Your task to perform on an android device: Do I have any events this weekend? Image 0: 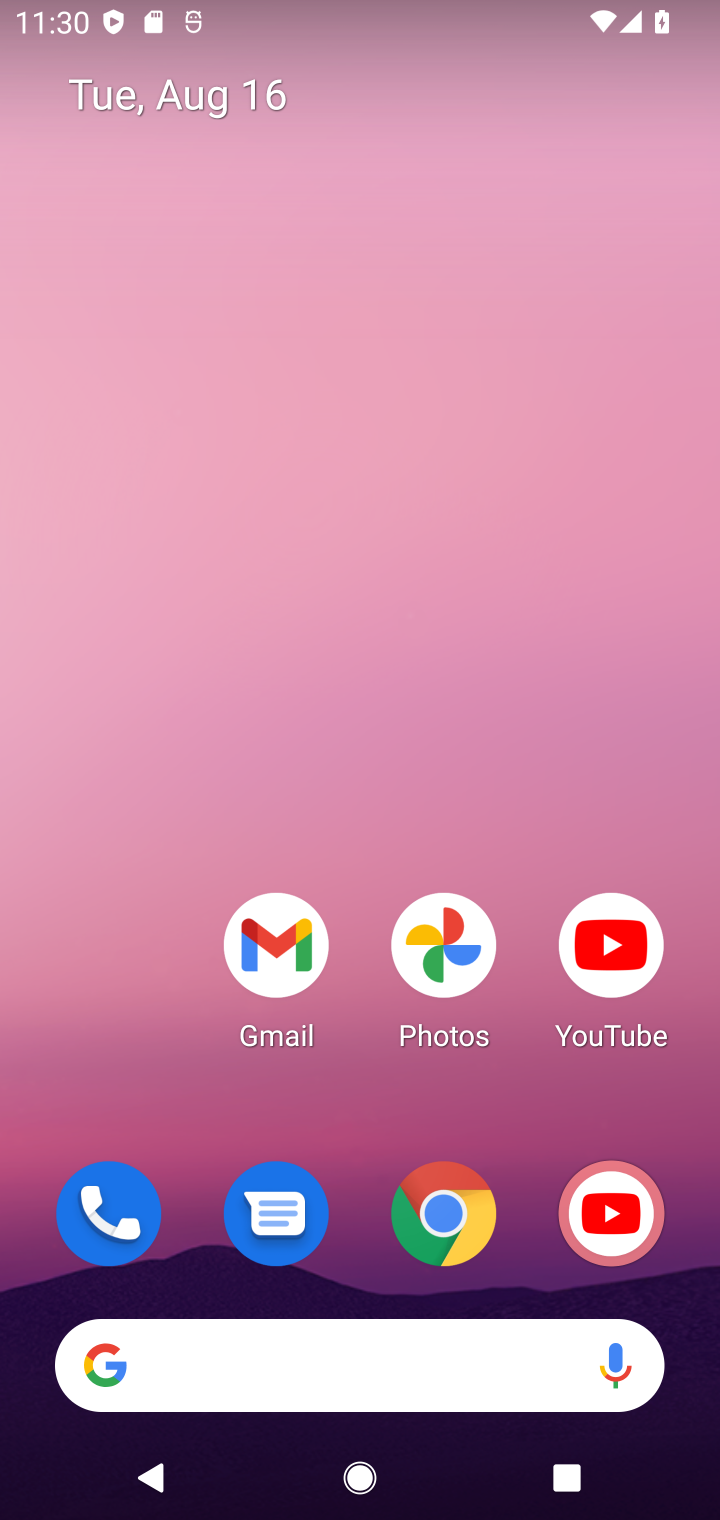
Step 0: drag from (519, 1102) to (434, 27)
Your task to perform on an android device: Do I have any events this weekend? Image 1: 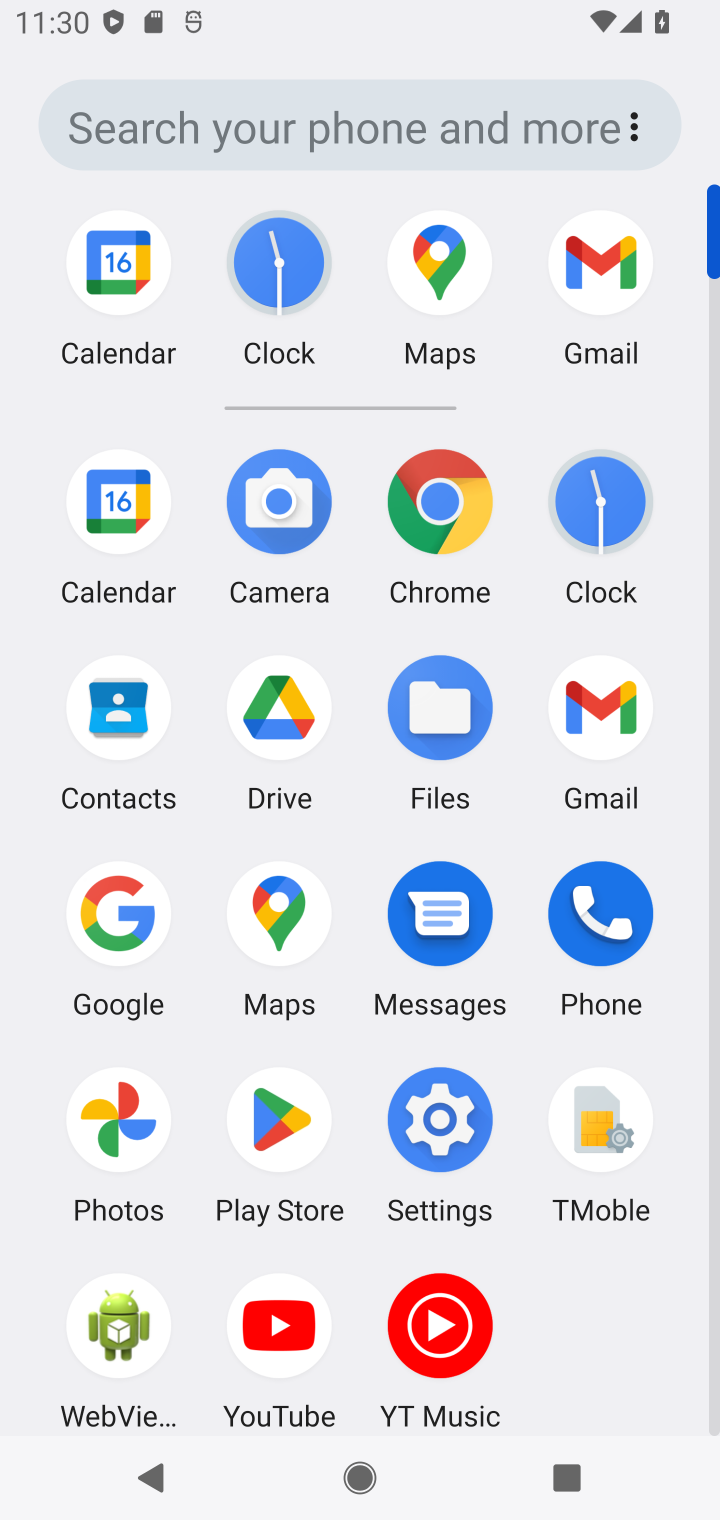
Step 1: click (112, 524)
Your task to perform on an android device: Do I have any events this weekend? Image 2: 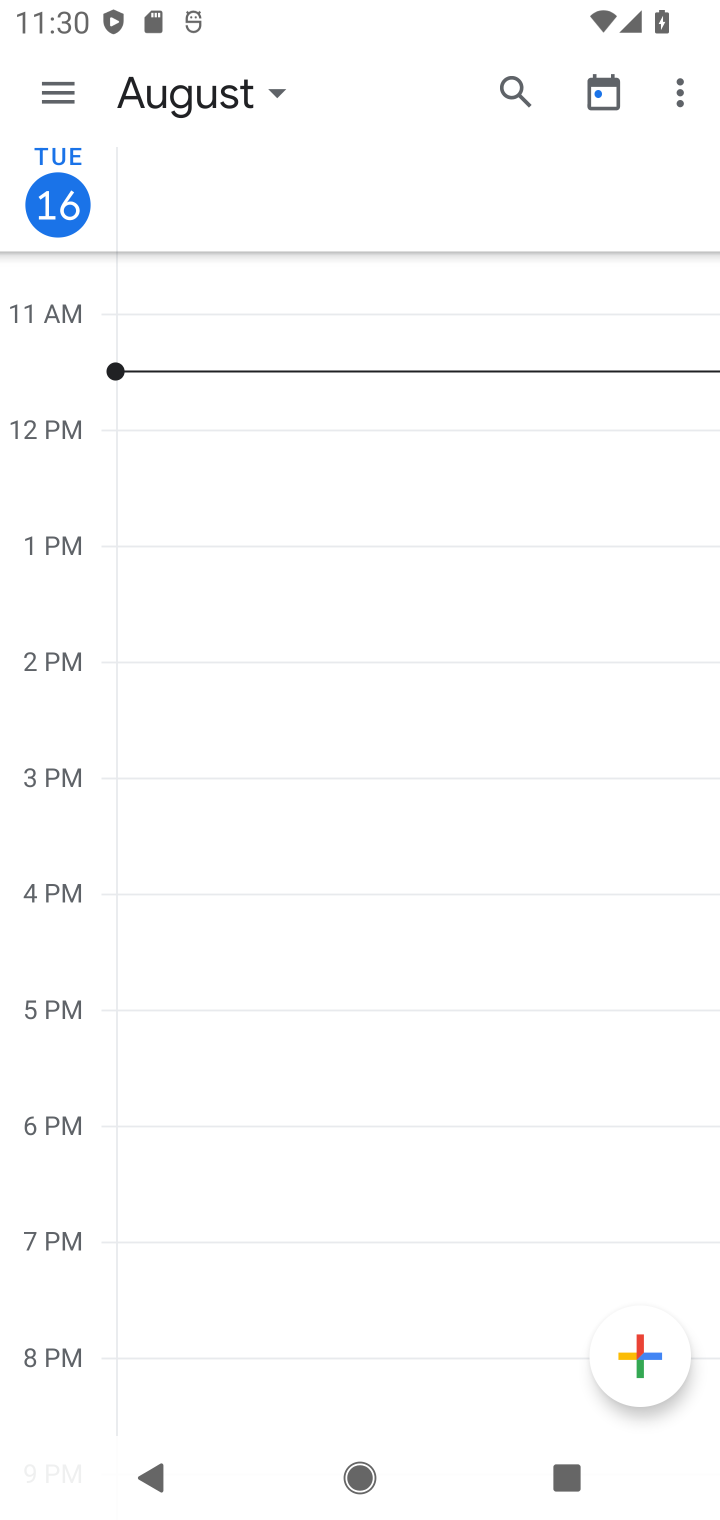
Step 2: click (160, 101)
Your task to perform on an android device: Do I have any events this weekend? Image 3: 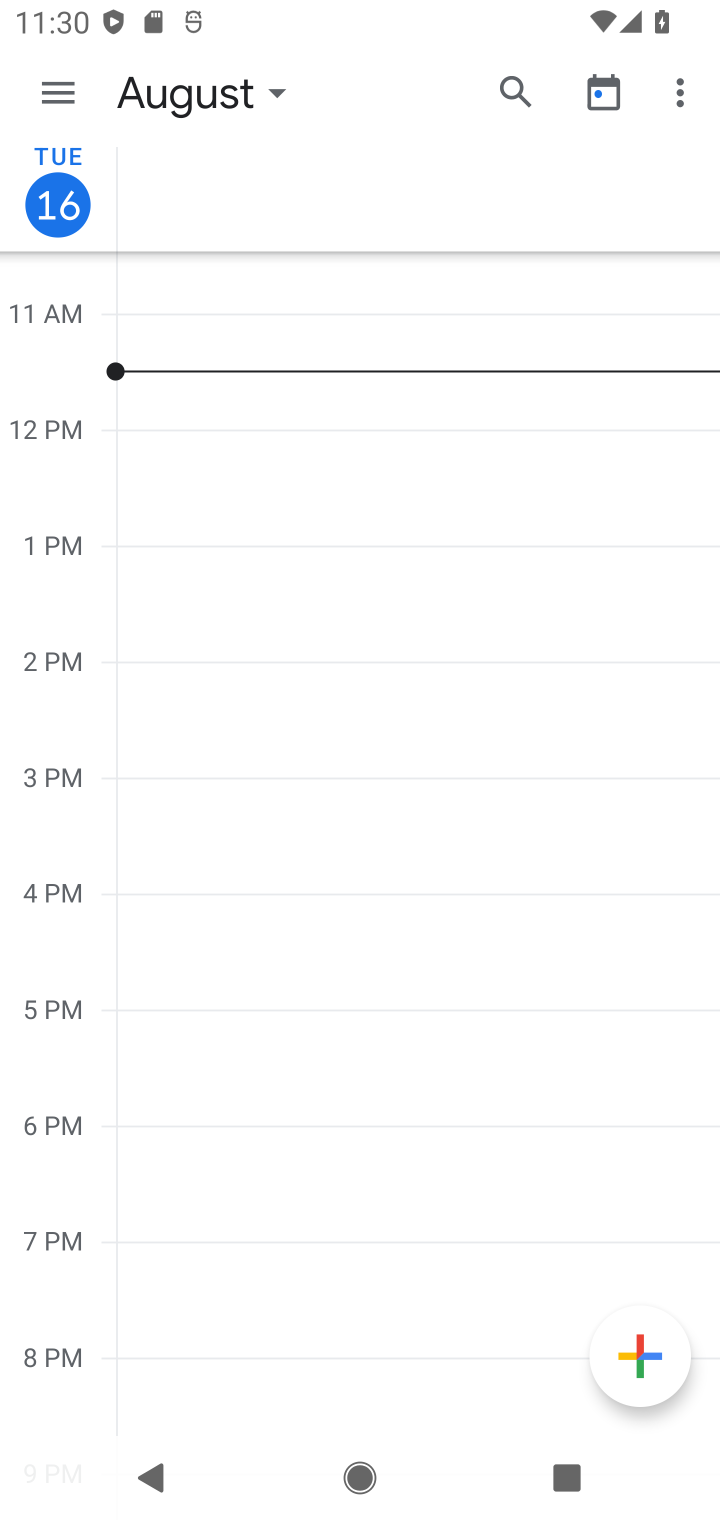
Step 3: click (228, 99)
Your task to perform on an android device: Do I have any events this weekend? Image 4: 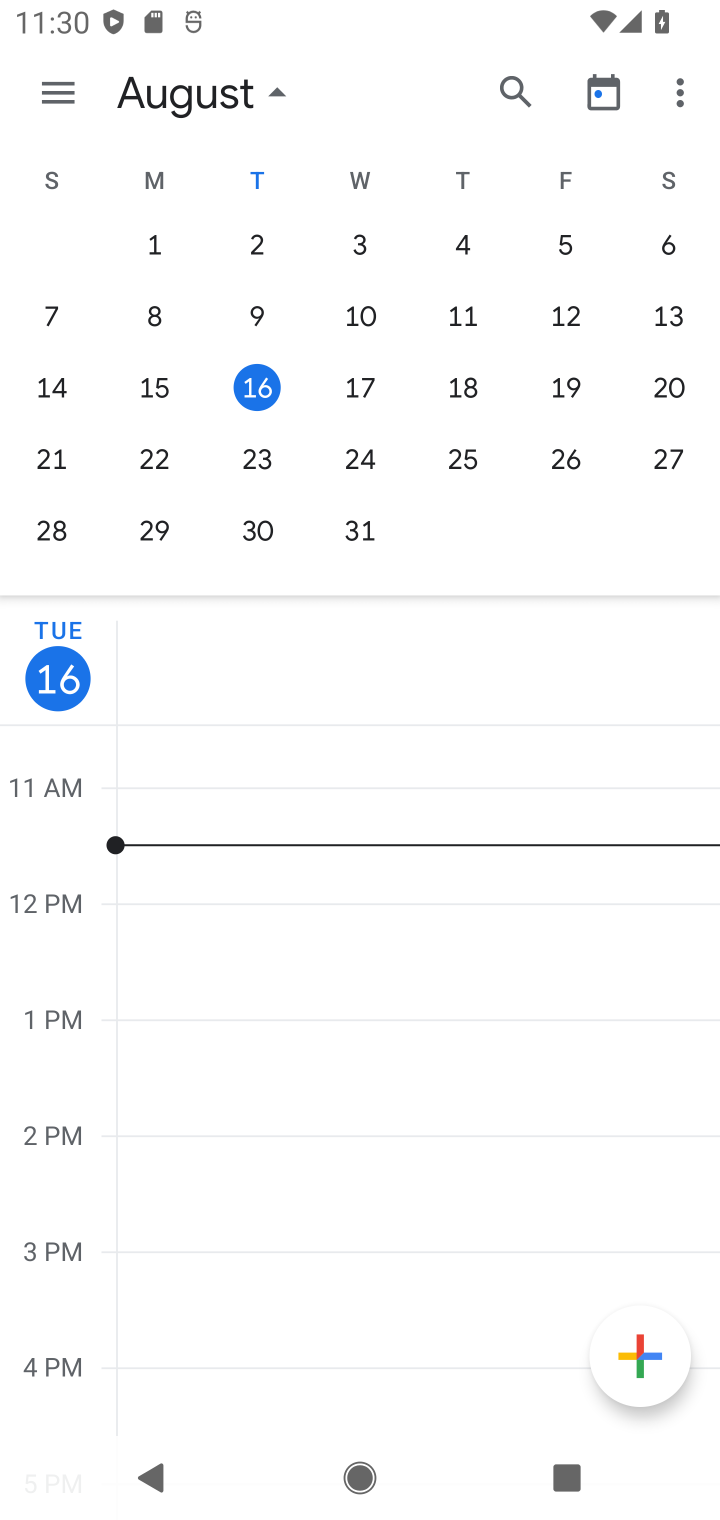
Step 4: click (651, 391)
Your task to perform on an android device: Do I have any events this weekend? Image 5: 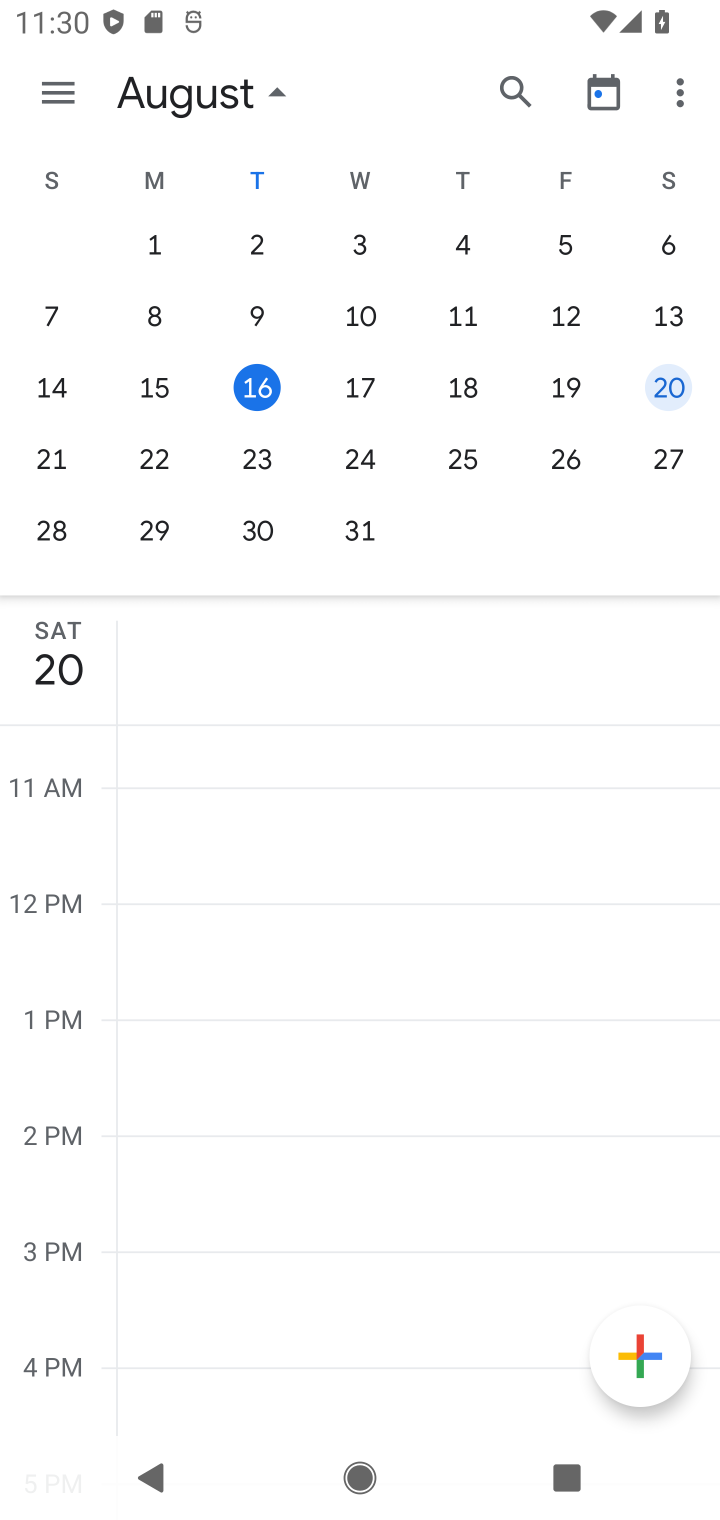
Step 5: task complete